Your task to perform on an android device: Show me the alarms in the clock app Image 0: 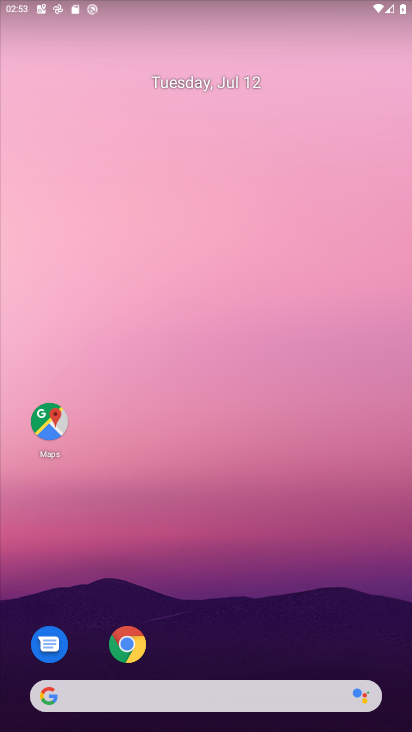
Step 0: drag from (223, 642) to (190, 63)
Your task to perform on an android device: Show me the alarms in the clock app Image 1: 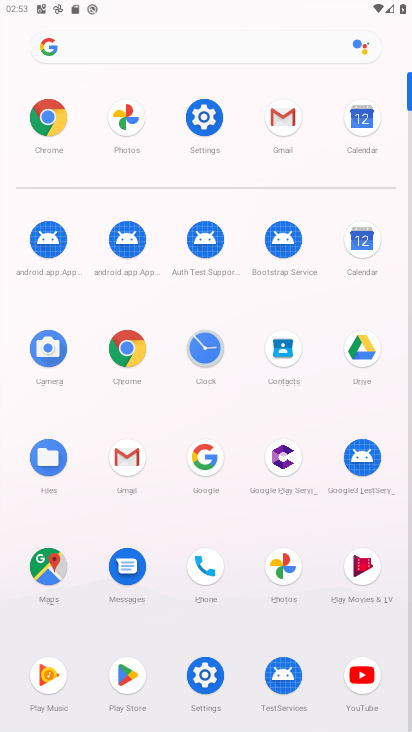
Step 1: click (204, 353)
Your task to perform on an android device: Show me the alarms in the clock app Image 2: 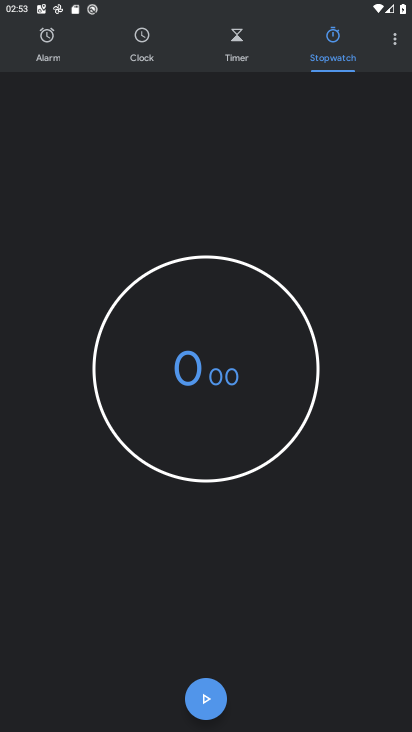
Step 2: click (36, 46)
Your task to perform on an android device: Show me the alarms in the clock app Image 3: 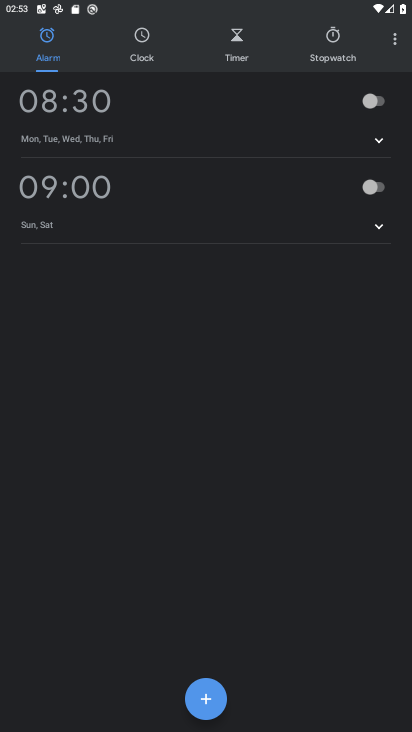
Step 3: task complete